Your task to perform on an android device: turn on improve location accuracy Image 0: 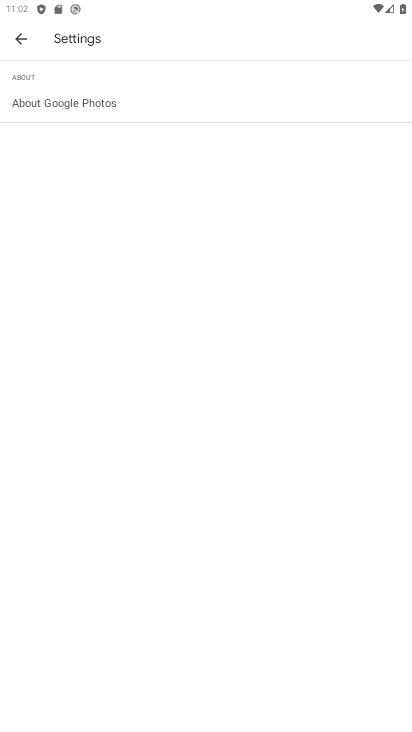
Step 0: press home button
Your task to perform on an android device: turn on improve location accuracy Image 1: 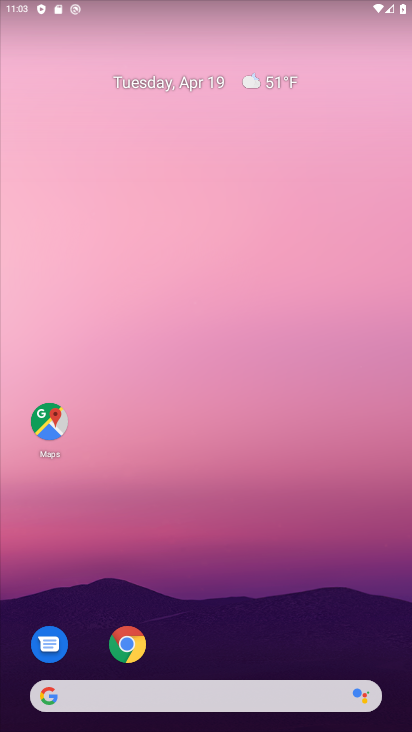
Step 1: drag from (204, 631) to (276, 85)
Your task to perform on an android device: turn on improve location accuracy Image 2: 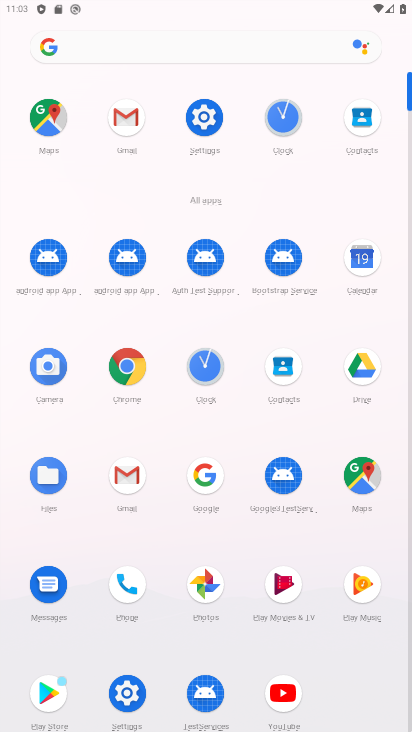
Step 2: click (203, 119)
Your task to perform on an android device: turn on improve location accuracy Image 3: 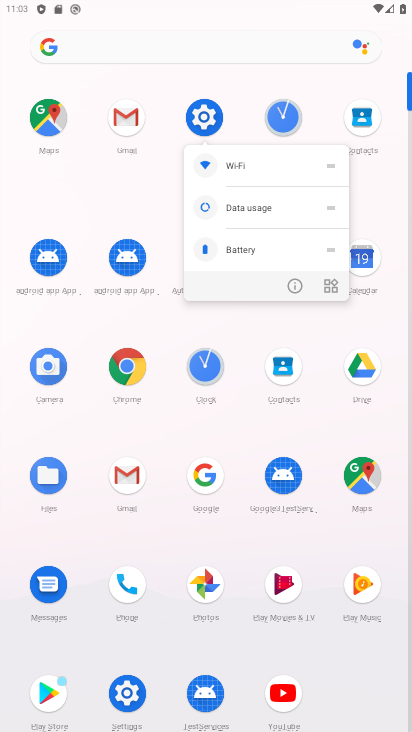
Step 3: click (203, 119)
Your task to perform on an android device: turn on improve location accuracy Image 4: 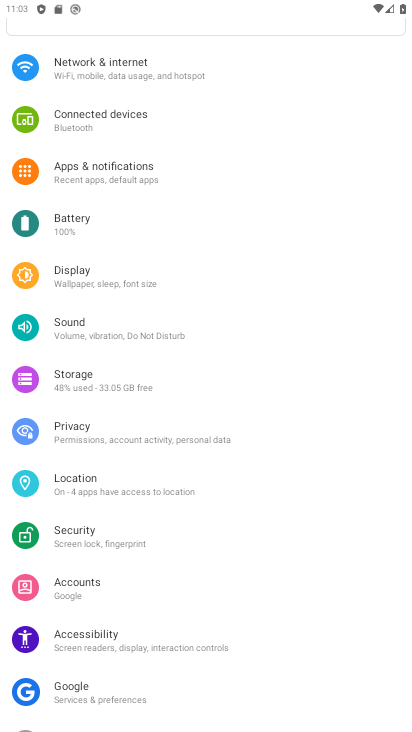
Step 4: click (80, 477)
Your task to perform on an android device: turn on improve location accuracy Image 5: 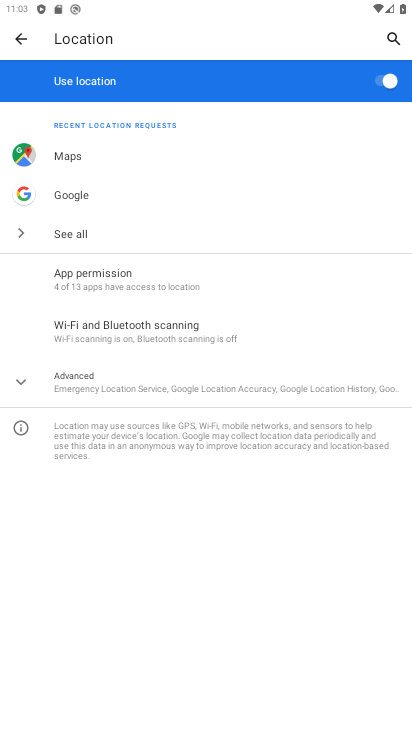
Step 5: click (121, 387)
Your task to perform on an android device: turn on improve location accuracy Image 6: 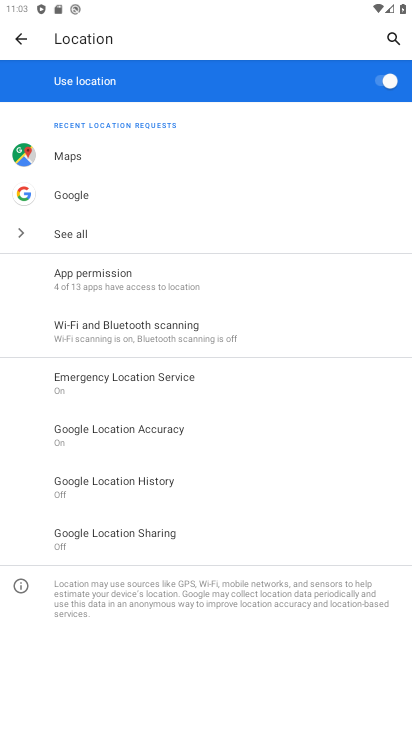
Step 6: click (137, 431)
Your task to perform on an android device: turn on improve location accuracy Image 7: 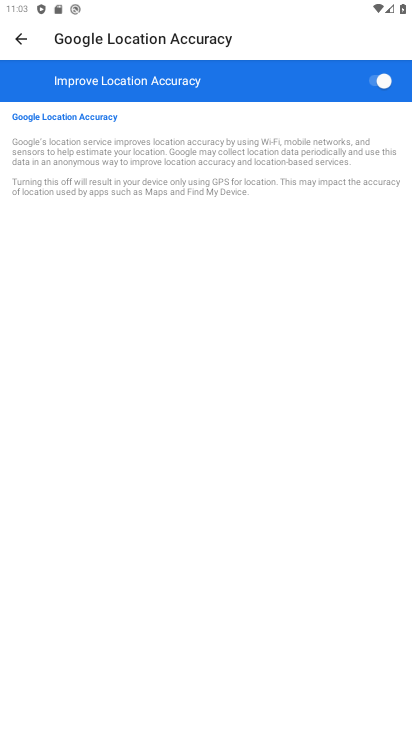
Step 7: task complete